Your task to perform on an android device: turn pop-ups off in chrome Image 0: 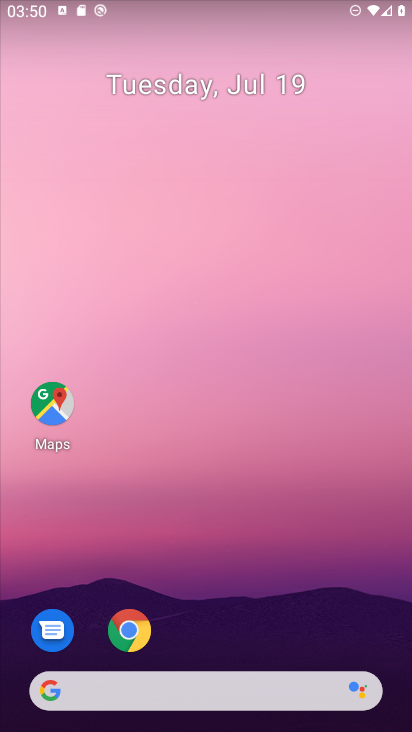
Step 0: click (133, 633)
Your task to perform on an android device: turn pop-ups off in chrome Image 1: 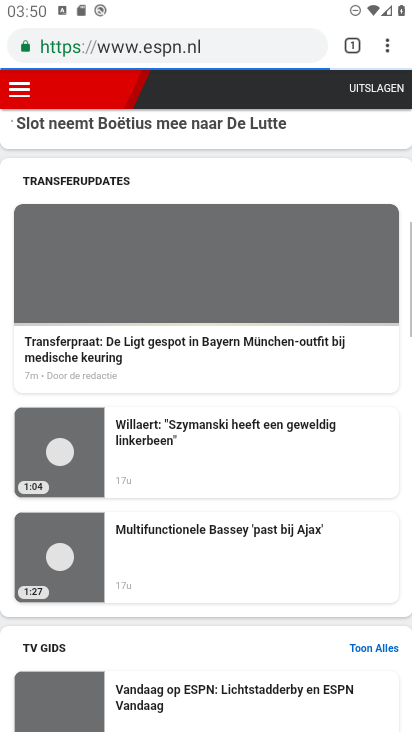
Step 1: click (386, 51)
Your task to perform on an android device: turn pop-ups off in chrome Image 2: 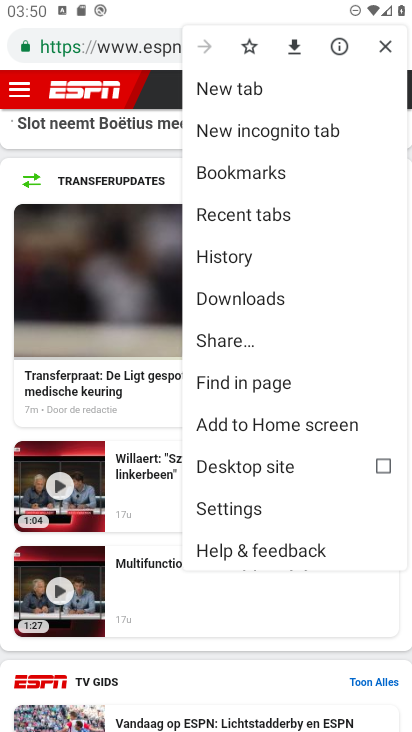
Step 2: click (246, 510)
Your task to perform on an android device: turn pop-ups off in chrome Image 3: 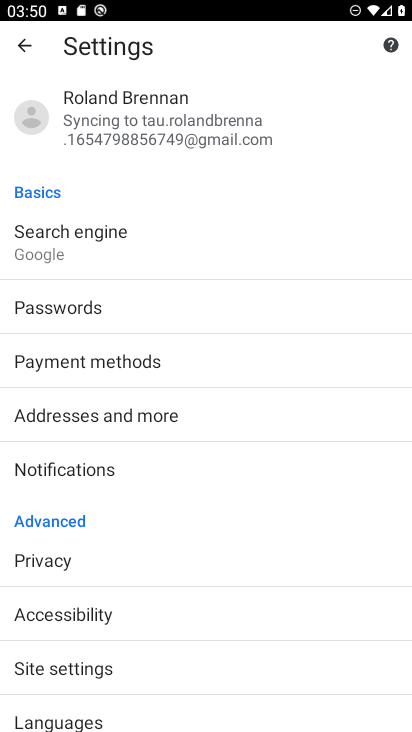
Step 3: click (71, 667)
Your task to perform on an android device: turn pop-ups off in chrome Image 4: 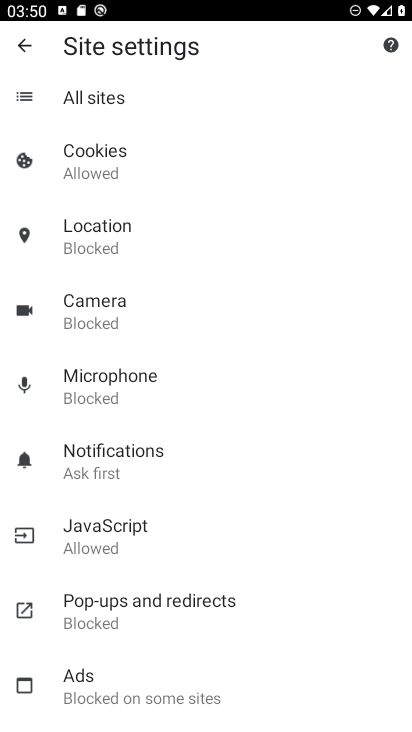
Step 4: click (81, 600)
Your task to perform on an android device: turn pop-ups off in chrome Image 5: 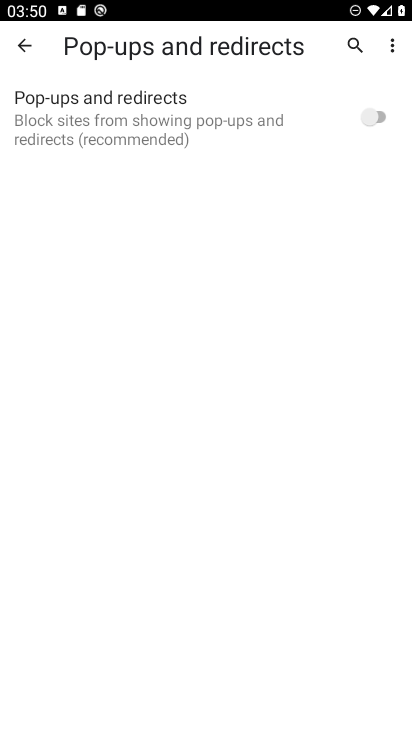
Step 5: task complete